Your task to perform on an android device: turn on javascript in the chrome app Image 0: 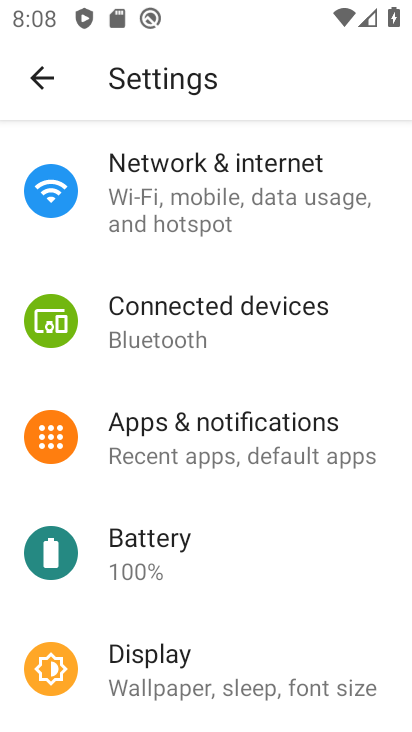
Step 0: press home button
Your task to perform on an android device: turn on javascript in the chrome app Image 1: 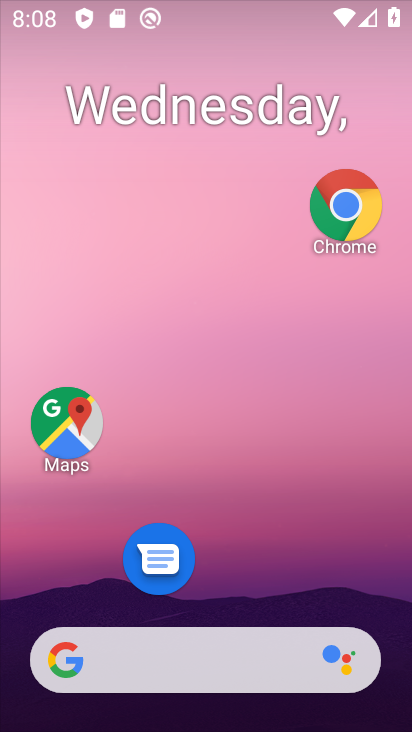
Step 1: drag from (209, 638) to (248, 280)
Your task to perform on an android device: turn on javascript in the chrome app Image 2: 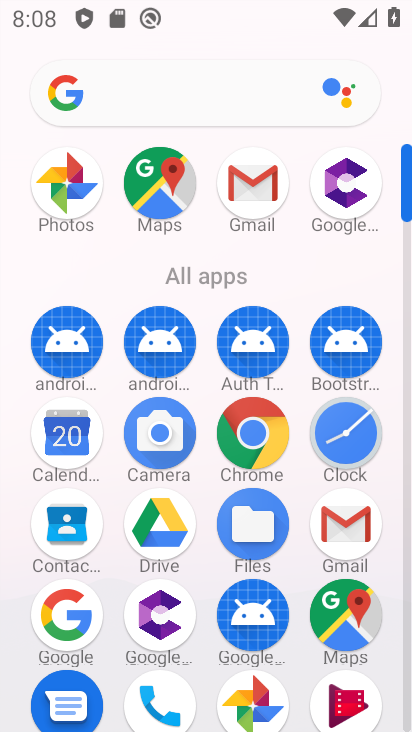
Step 2: click (256, 427)
Your task to perform on an android device: turn on javascript in the chrome app Image 3: 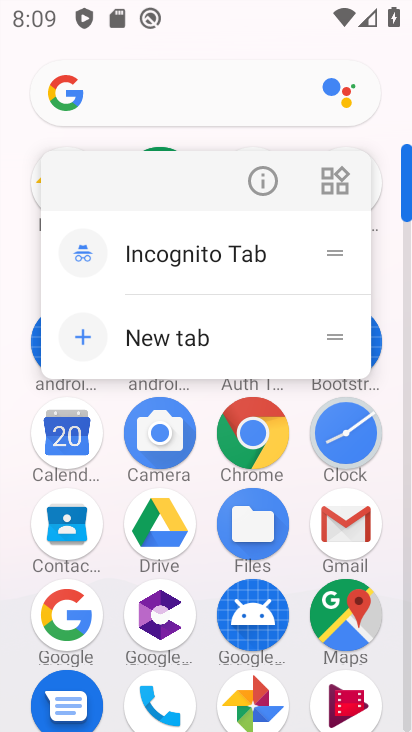
Step 3: click (246, 197)
Your task to perform on an android device: turn on javascript in the chrome app Image 4: 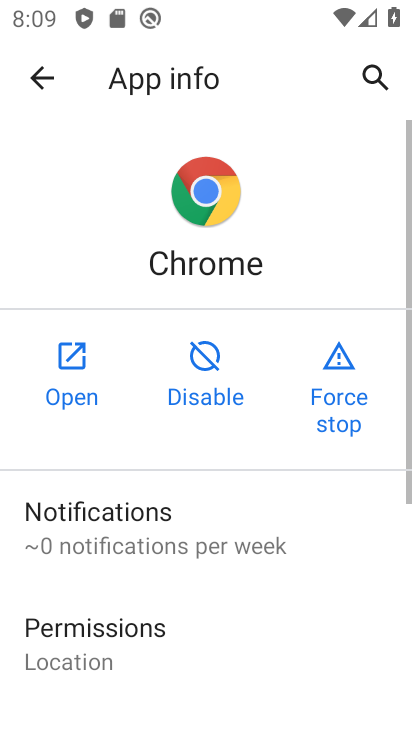
Step 4: click (80, 357)
Your task to perform on an android device: turn on javascript in the chrome app Image 5: 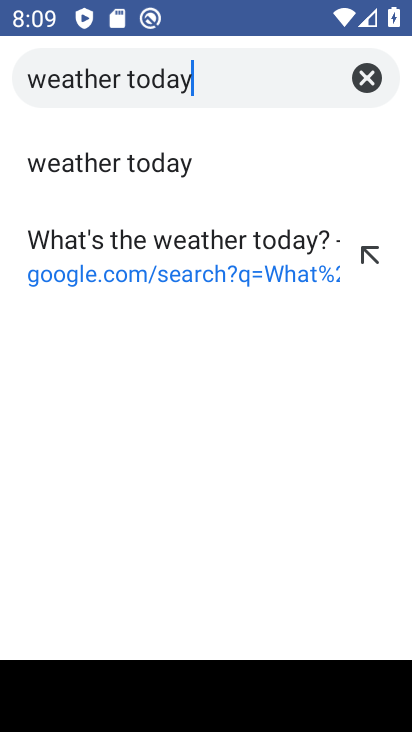
Step 5: click (359, 75)
Your task to perform on an android device: turn on javascript in the chrome app Image 6: 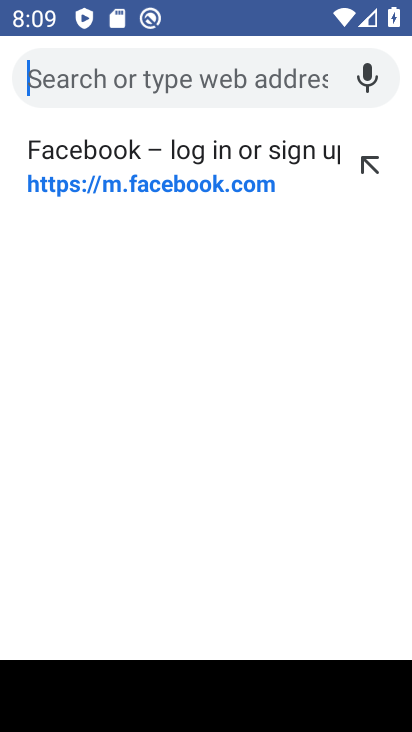
Step 6: press back button
Your task to perform on an android device: turn on javascript in the chrome app Image 7: 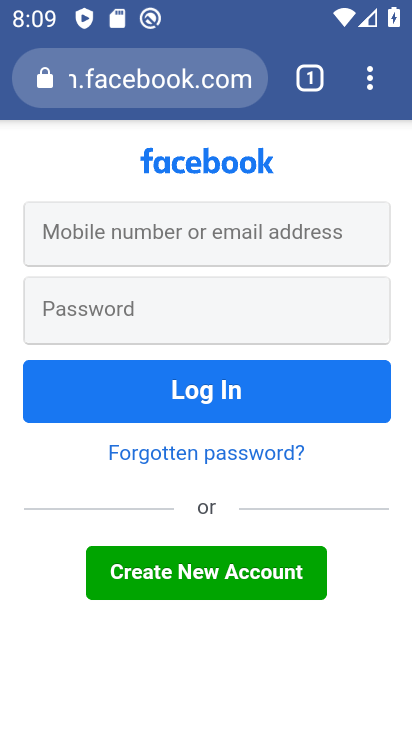
Step 7: drag from (369, 70) to (202, 604)
Your task to perform on an android device: turn on javascript in the chrome app Image 8: 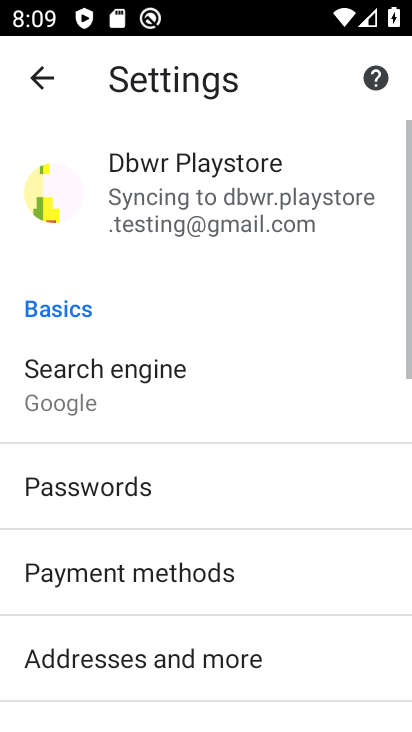
Step 8: drag from (199, 563) to (409, 91)
Your task to perform on an android device: turn on javascript in the chrome app Image 9: 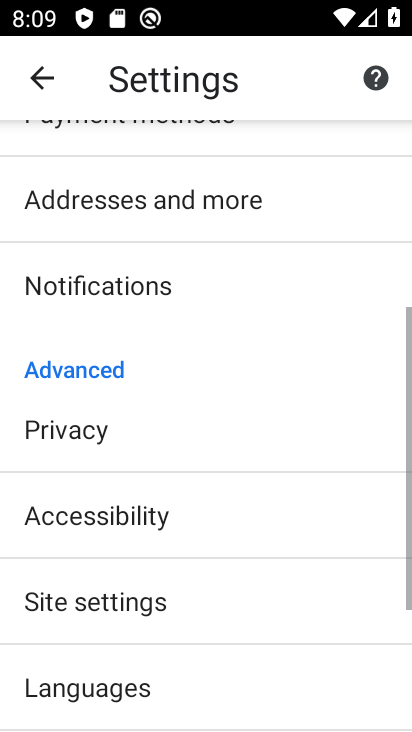
Step 9: drag from (126, 659) to (238, 210)
Your task to perform on an android device: turn on javascript in the chrome app Image 10: 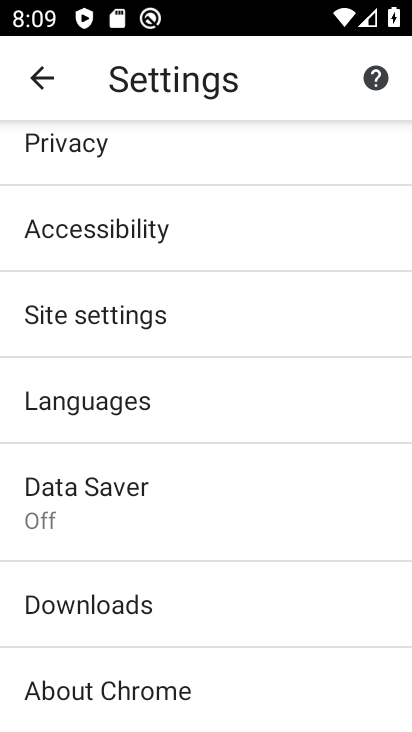
Step 10: drag from (250, 574) to (271, 255)
Your task to perform on an android device: turn on javascript in the chrome app Image 11: 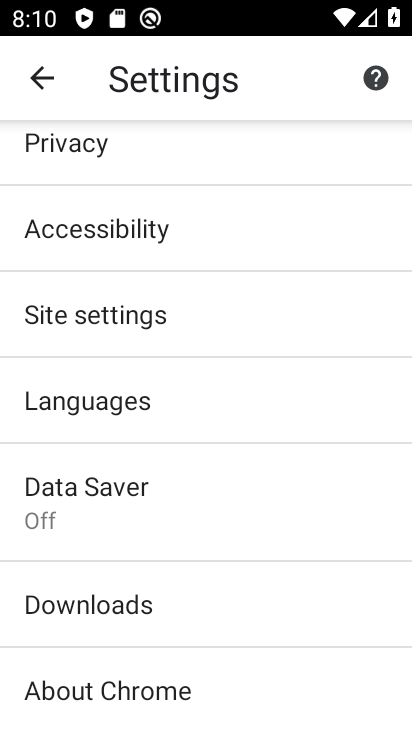
Step 11: drag from (159, 408) to (286, 228)
Your task to perform on an android device: turn on javascript in the chrome app Image 12: 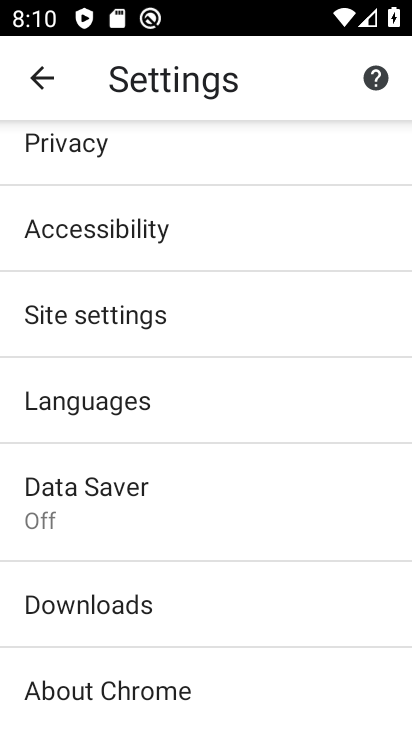
Step 12: click (169, 316)
Your task to perform on an android device: turn on javascript in the chrome app Image 13: 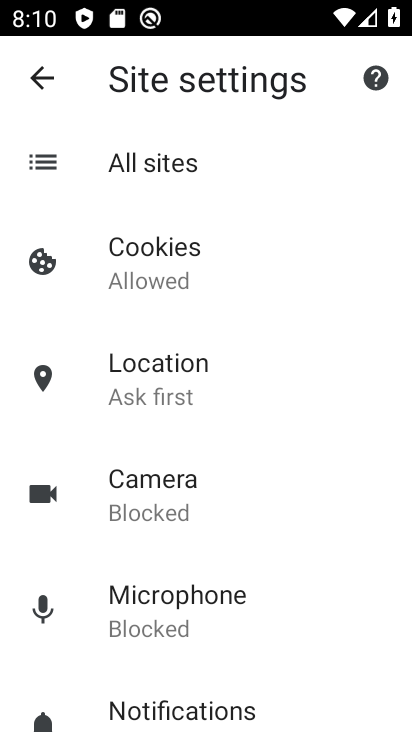
Step 13: drag from (203, 655) to (384, 107)
Your task to perform on an android device: turn on javascript in the chrome app Image 14: 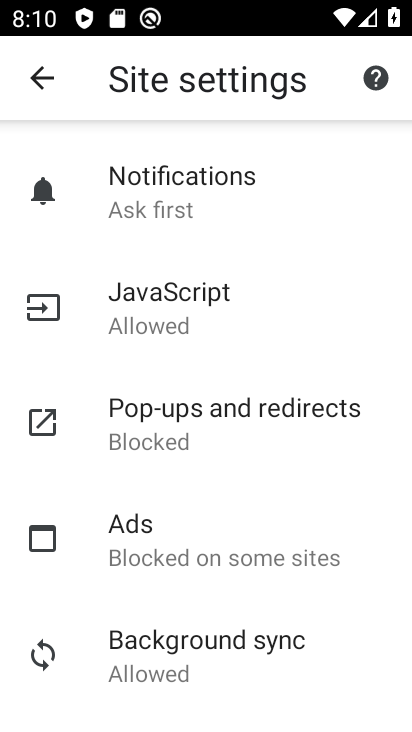
Step 14: click (168, 290)
Your task to perform on an android device: turn on javascript in the chrome app Image 15: 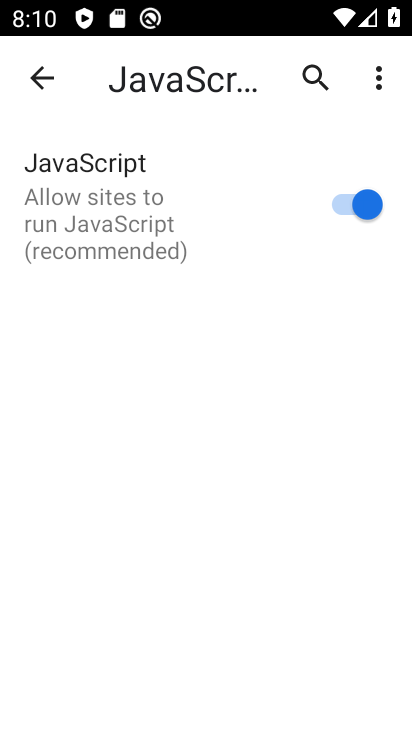
Step 15: task complete